Your task to perform on an android device: visit the assistant section in the google photos Image 0: 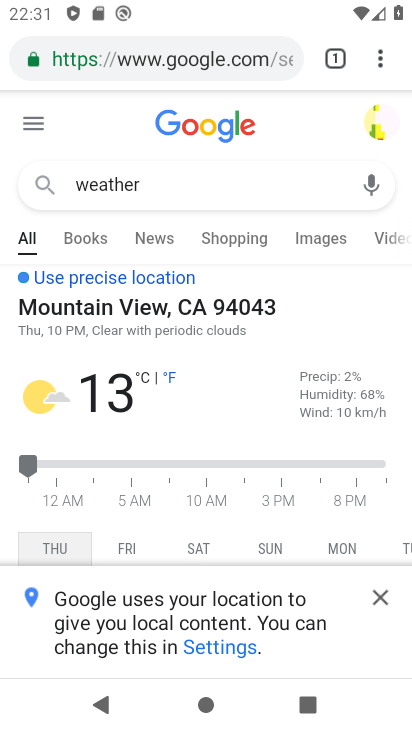
Step 0: press home button
Your task to perform on an android device: visit the assistant section in the google photos Image 1: 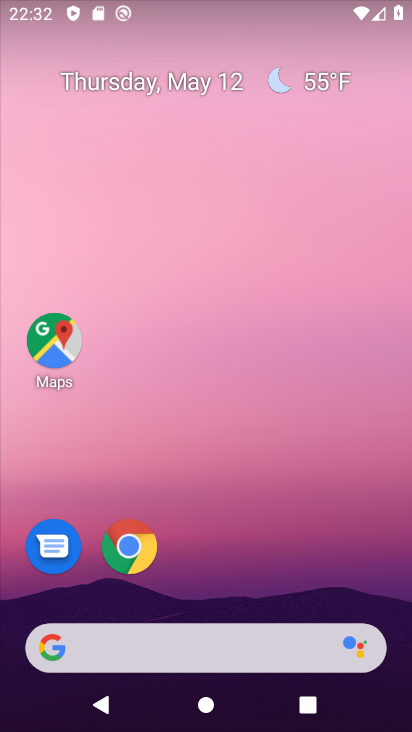
Step 1: drag from (186, 537) to (197, 222)
Your task to perform on an android device: visit the assistant section in the google photos Image 2: 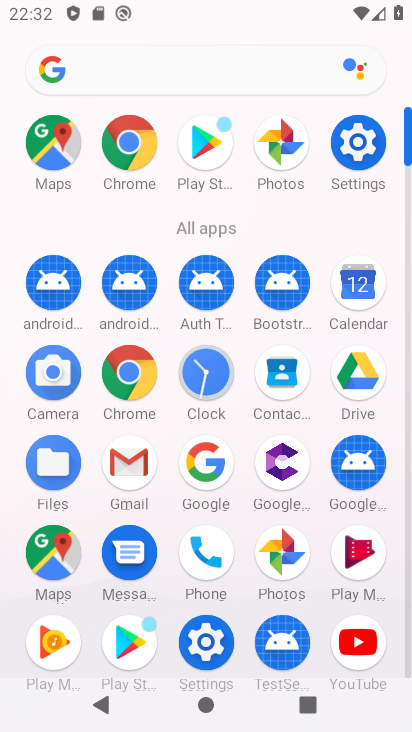
Step 2: click (284, 156)
Your task to perform on an android device: visit the assistant section in the google photos Image 3: 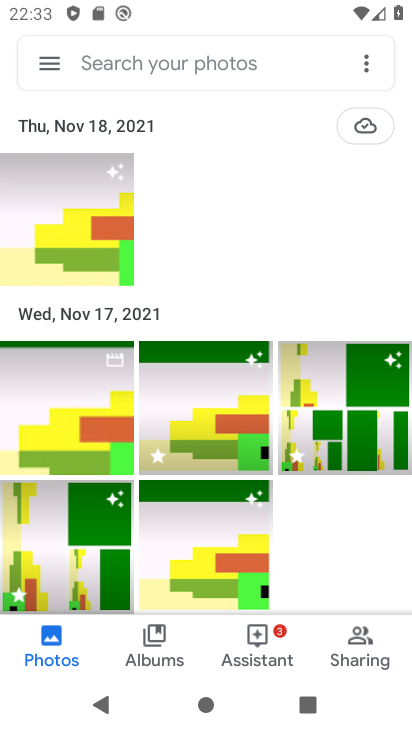
Step 3: click (247, 656)
Your task to perform on an android device: visit the assistant section in the google photos Image 4: 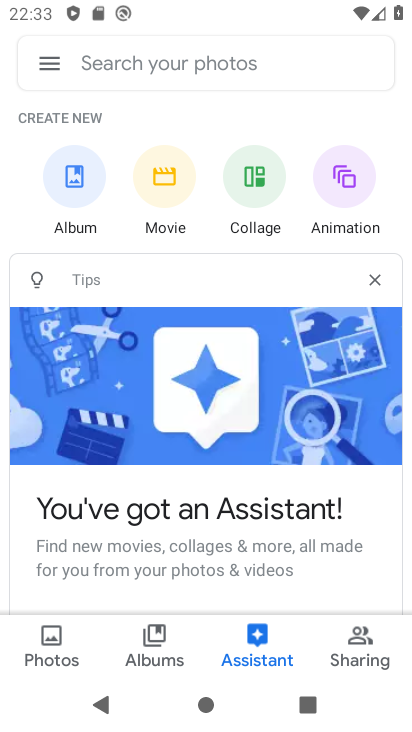
Step 4: task complete